Your task to perform on an android device: toggle wifi Image 0: 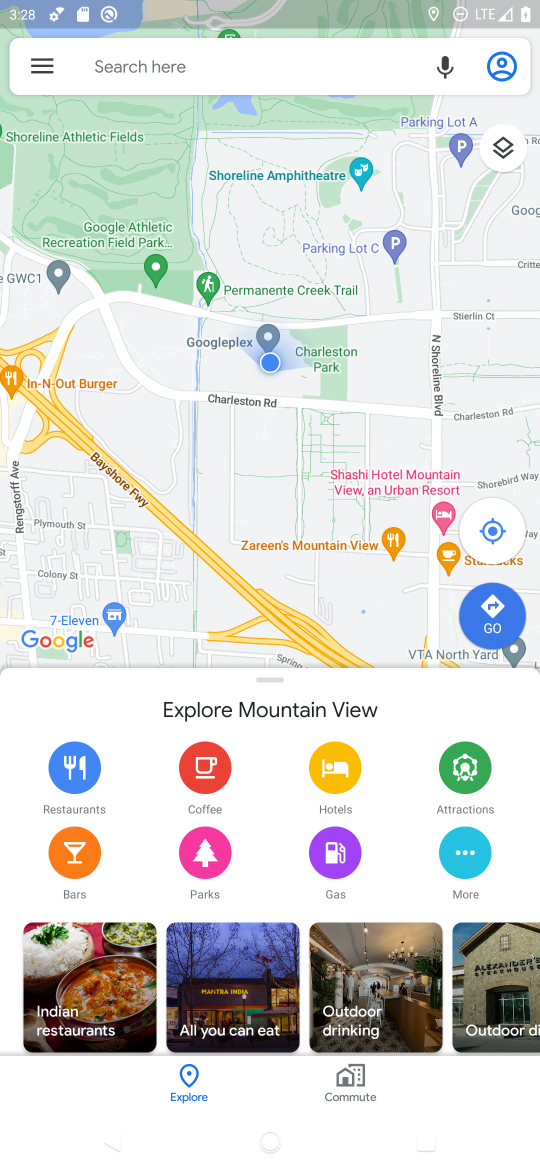
Step 0: press home button
Your task to perform on an android device: toggle wifi Image 1: 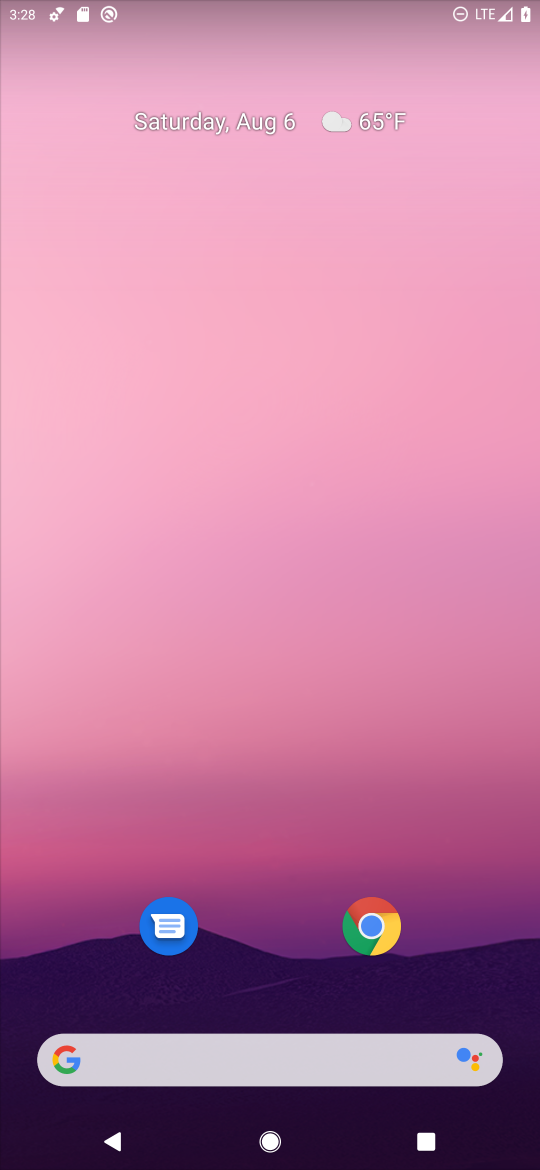
Step 1: drag from (300, 943) to (237, 328)
Your task to perform on an android device: toggle wifi Image 2: 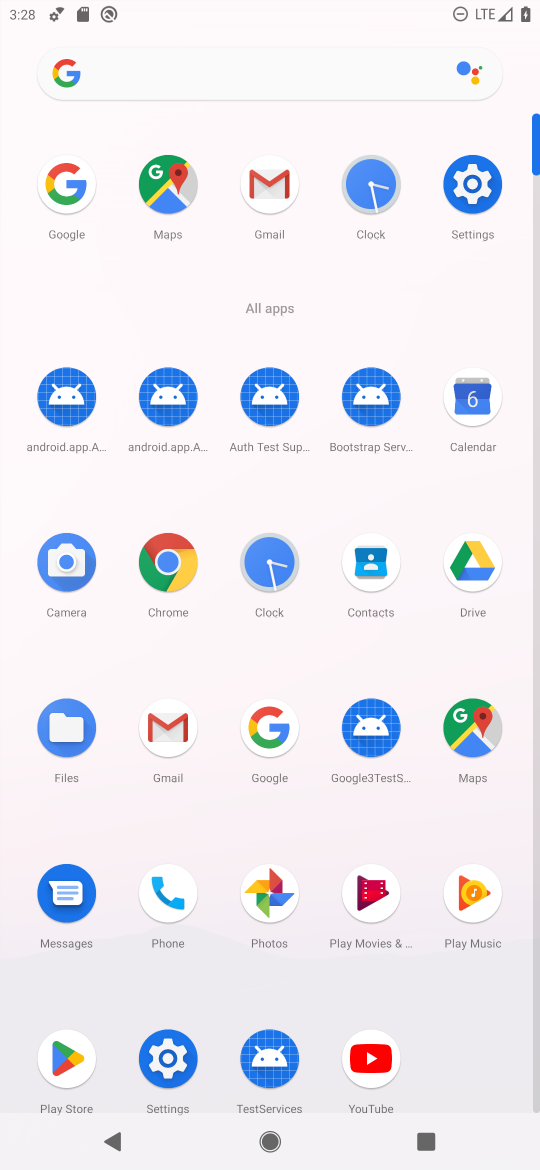
Step 2: click (454, 209)
Your task to perform on an android device: toggle wifi Image 3: 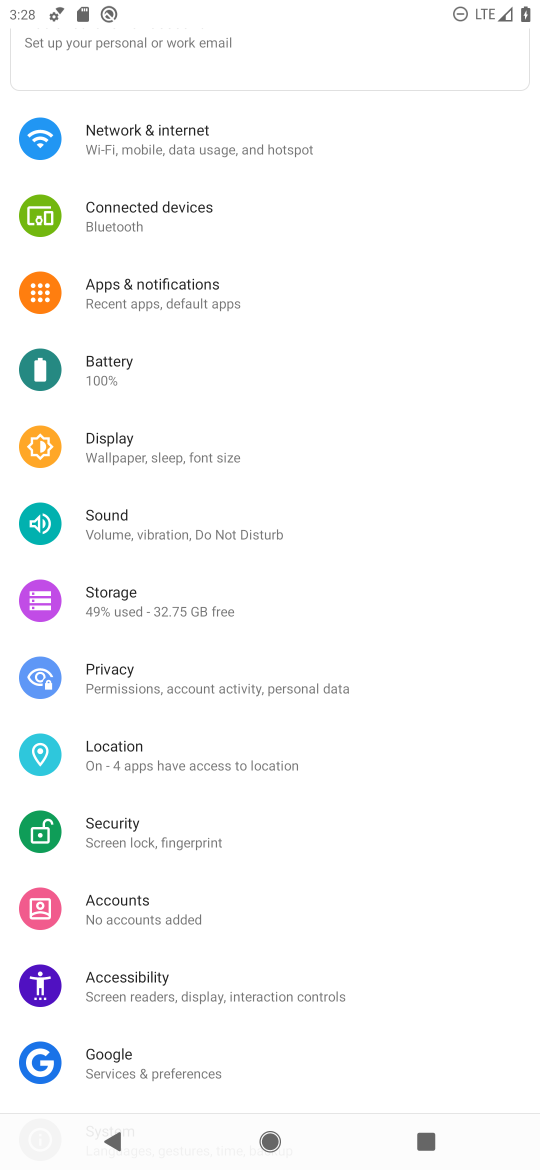
Step 3: click (164, 135)
Your task to perform on an android device: toggle wifi Image 4: 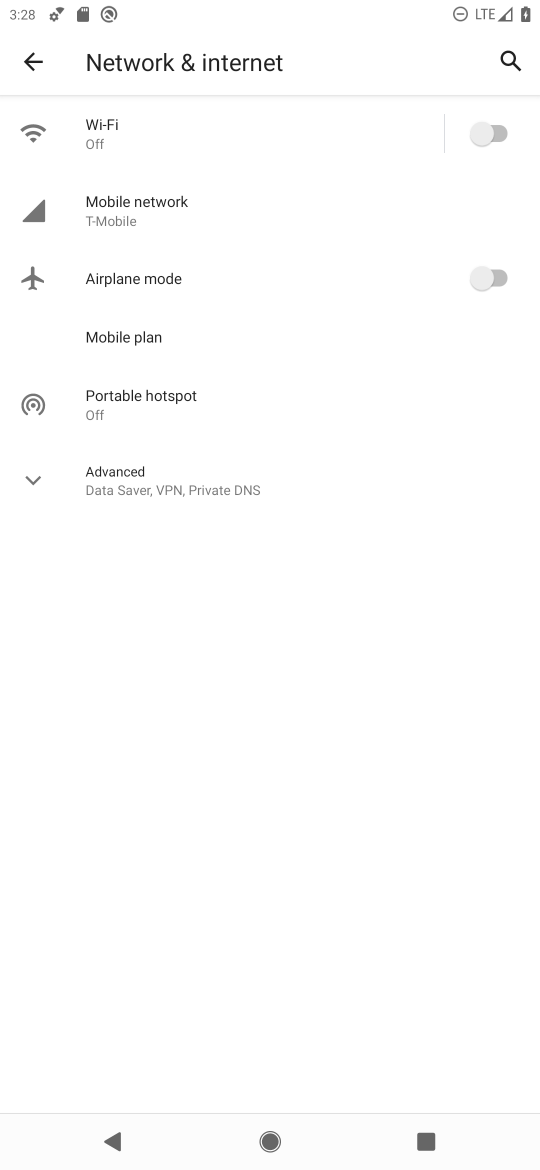
Step 4: click (483, 135)
Your task to perform on an android device: toggle wifi Image 5: 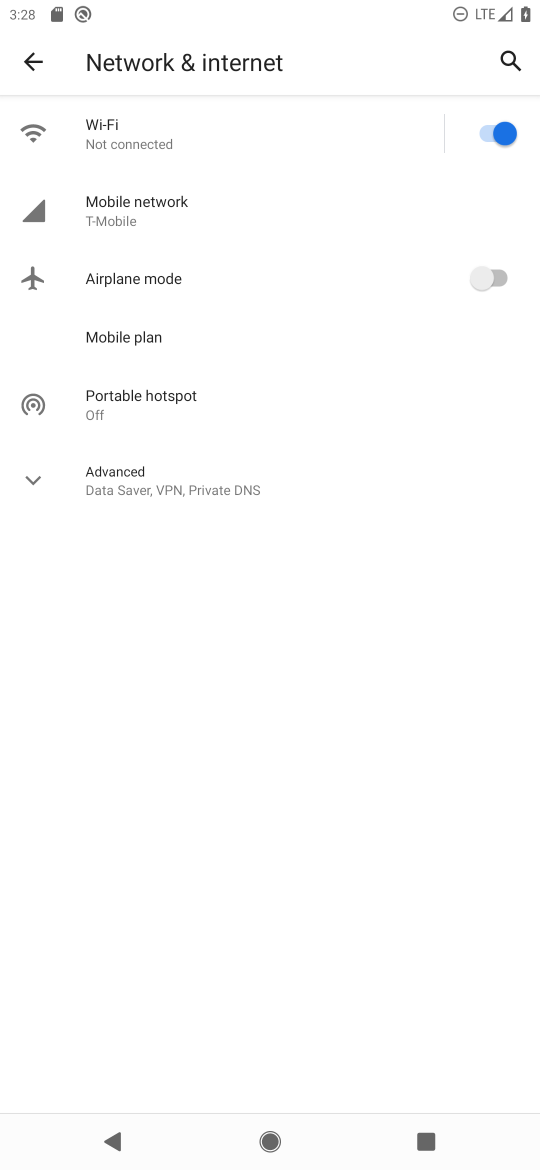
Step 5: task complete